Your task to perform on an android device: change the upload size in google photos Image 0: 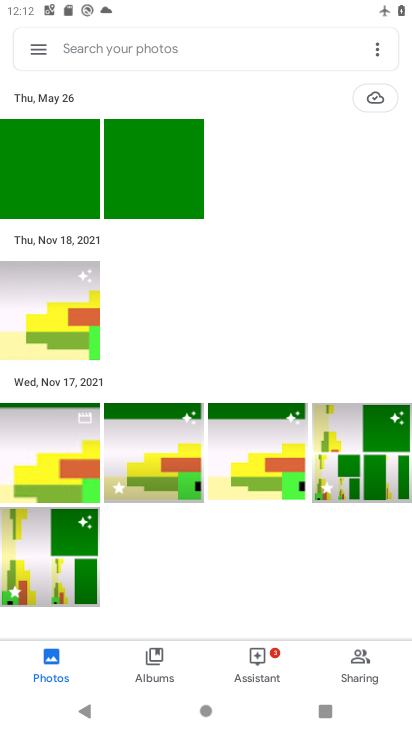
Step 0: press home button
Your task to perform on an android device: change the upload size in google photos Image 1: 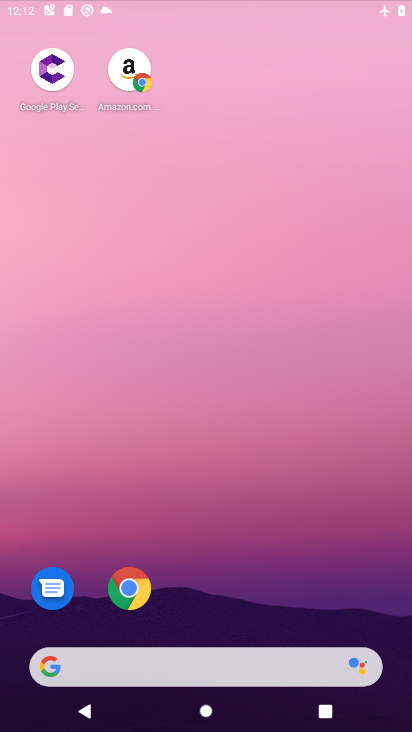
Step 1: drag from (231, 705) to (319, 76)
Your task to perform on an android device: change the upload size in google photos Image 2: 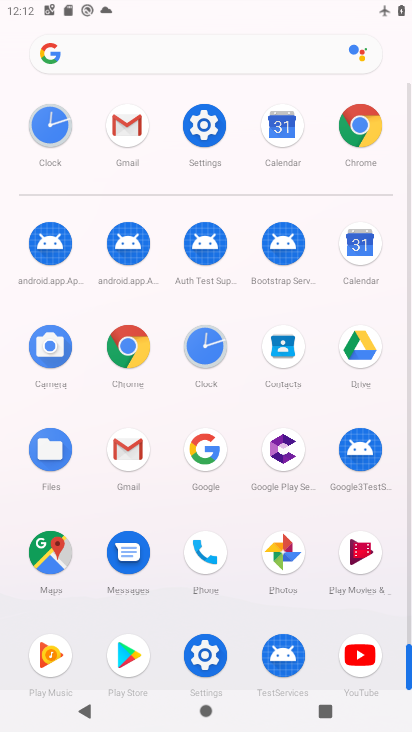
Step 2: click (294, 552)
Your task to perform on an android device: change the upload size in google photos Image 3: 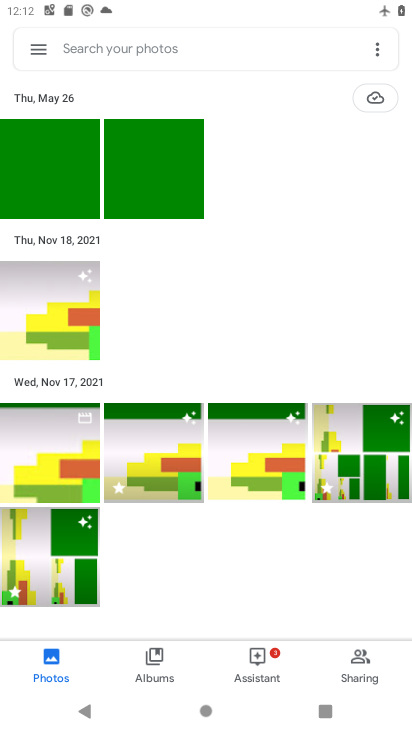
Step 3: click (46, 37)
Your task to perform on an android device: change the upload size in google photos Image 4: 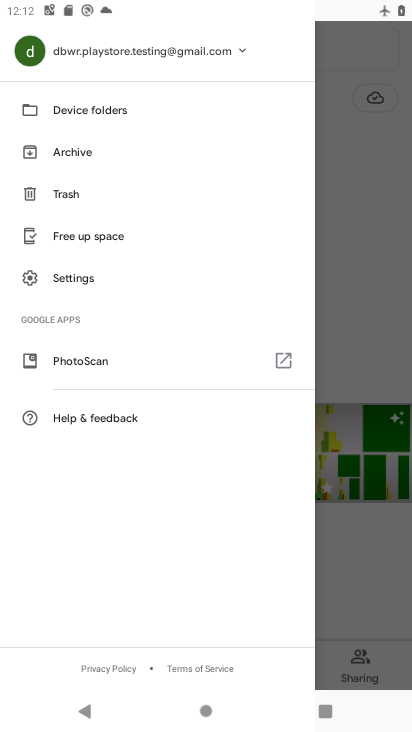
Step 4: click (115, 282)
Your task to perform on an android device: change the upload size in google photos Image 5: 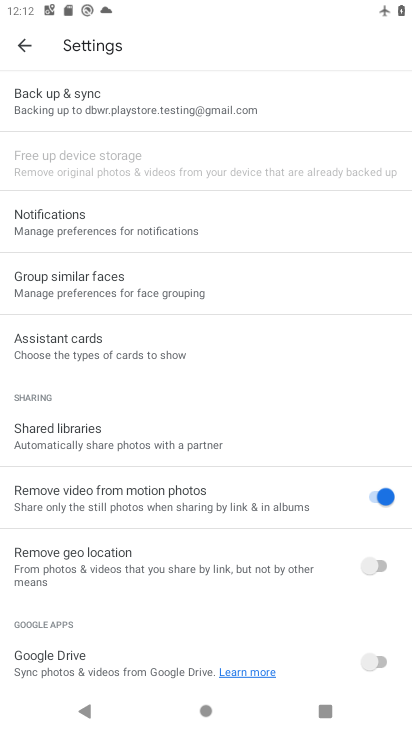
Step 5: click (165, 89)
Your task to perform on an android device: change the upload size in google photos Image 6: 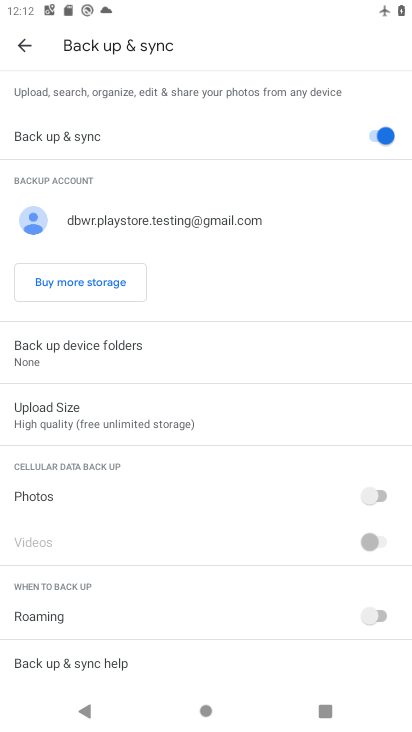
Step 6: click (128, 407)
Your task to perform on an android device: change the upload size in google photos Image 7: 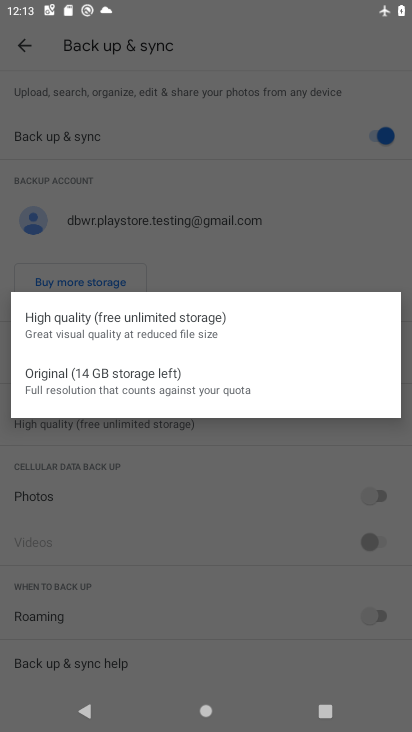
Step 7: click (130, 394)
Your task to perform on an android device: change the upload size in google photos Image 8: 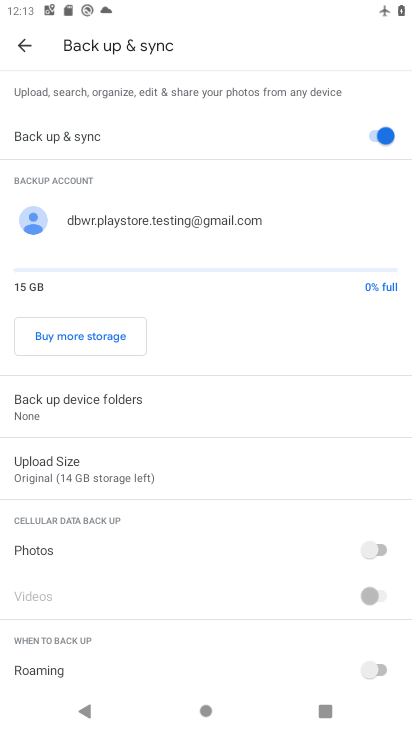
Step 8: task complete